Your task to perform on an android device: Go to eBay Image 0: 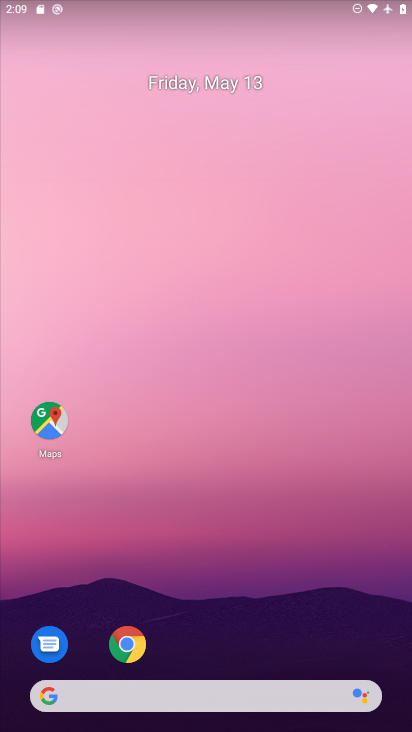
Step 0: drag from (327, 619) to (160, 82)
Your task to perform on an android device: Go to eBay Image 1: 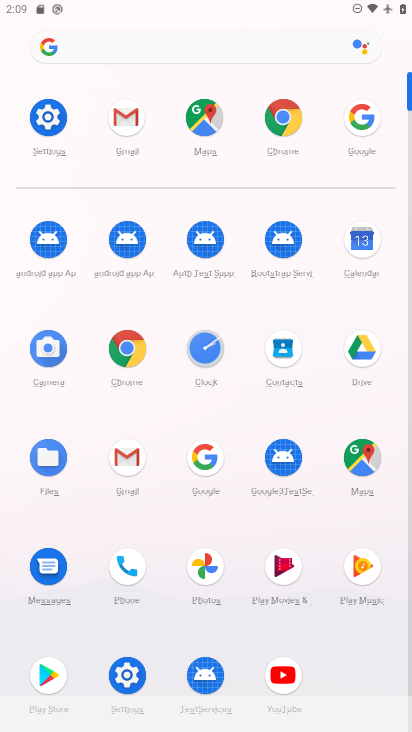
Step 1: click (286, 125)
Your task to perform on an android device: Go to eBay Image 2: 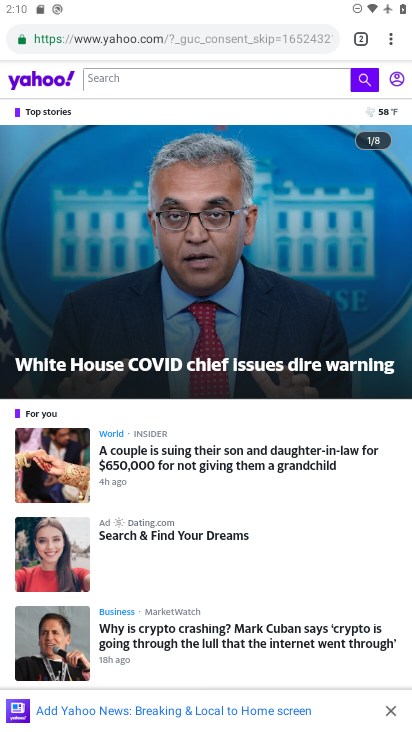
Step 2: press back button
Your task to perform on an android device: Go to eBay Image 3: 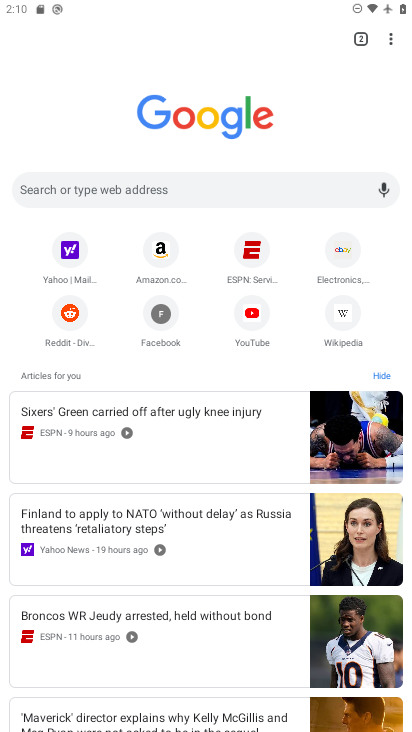
Step 3: click (343, 256)
Your task to perform on an android device: Go to eBay Image 4: 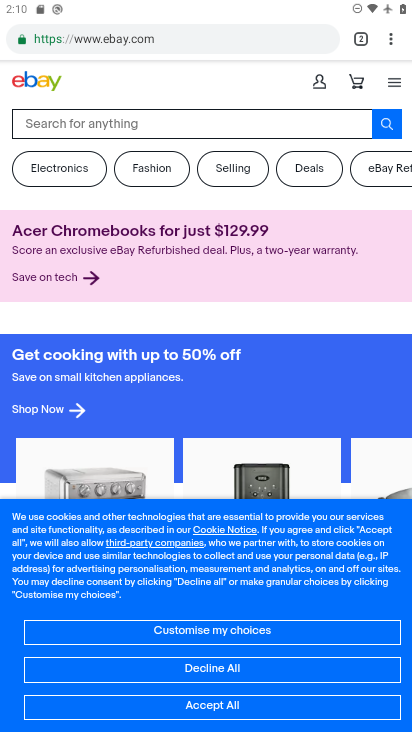
Step 4: task complete